Your task to perform on an android device: delete browsing data in the chrome app Image 0: 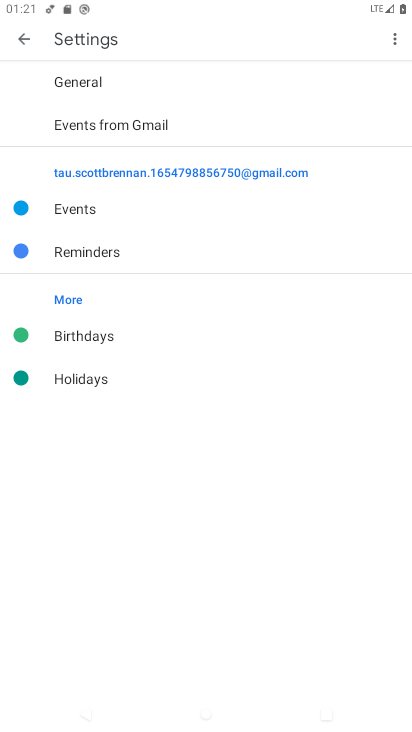
Step 0: press home button
Your task to perform on an android device: delete browsing data in the chrome app Image 1: 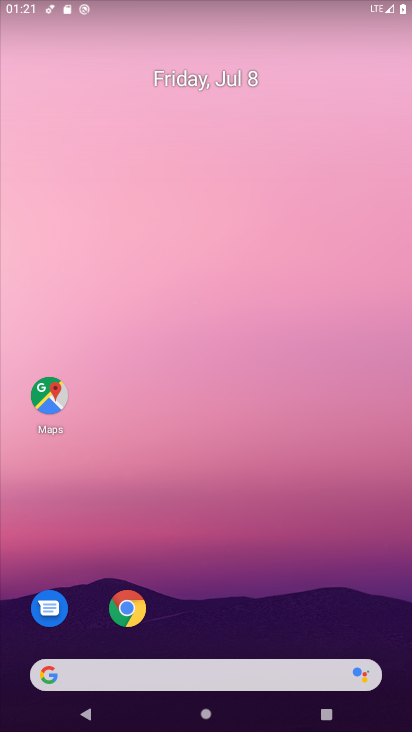
Step 1: drag from (196, 586) to (194, 145)
Your task to perform on an android device: delete browsing data in the chrome app Image 2: 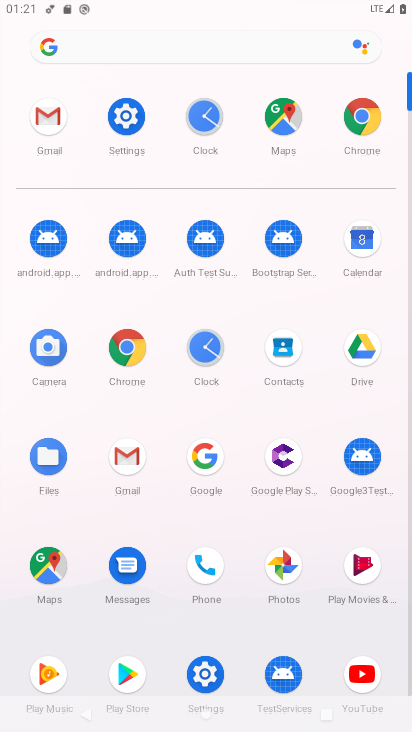
Step 2: click (130, 332)
Your task to perform on an android device: delete browsing data in the chrome app Image 3: 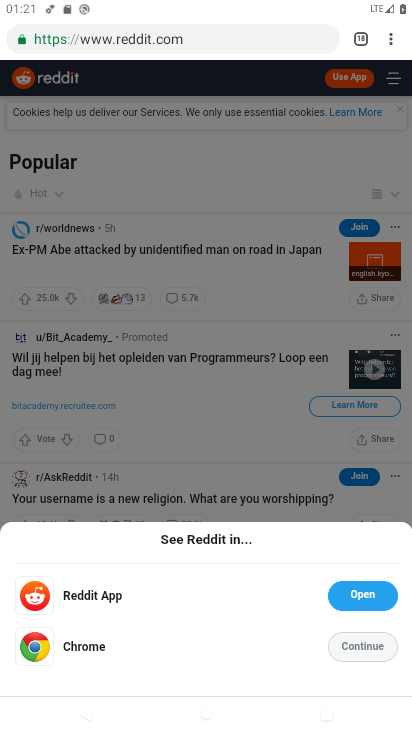
Step 3: click (391, 29)
Your task to perform on an android device: delete browsing data in the chrome app Image 4: 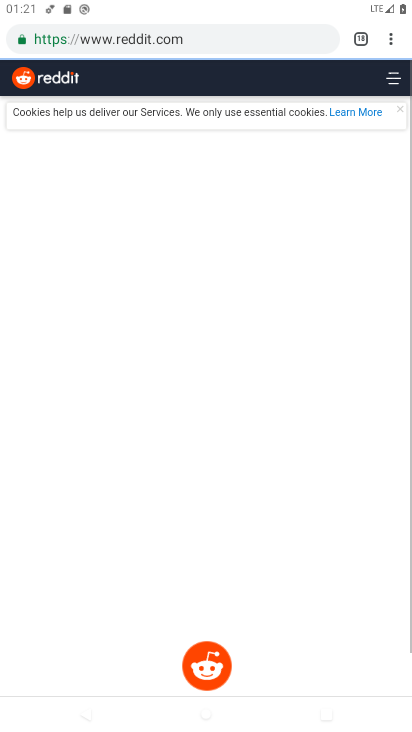
Step 4: click (391, 31)
Your task to perform on an android device: delete browsing data in the chrome app Image 5: 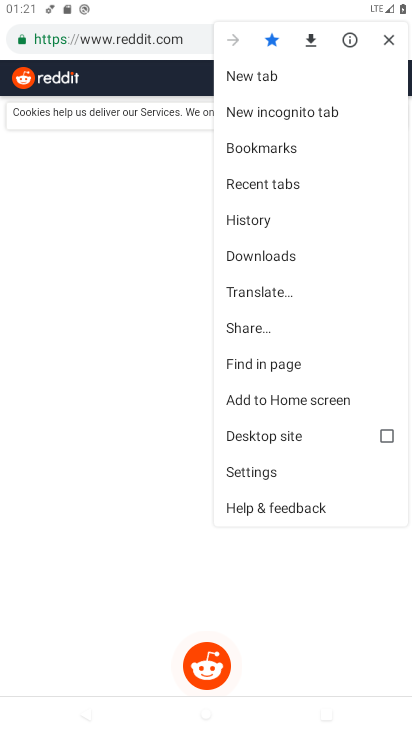
Step 5: click (263, 465)
Your task to perform on an android device: delete browsing data in the chrome app Image 6: 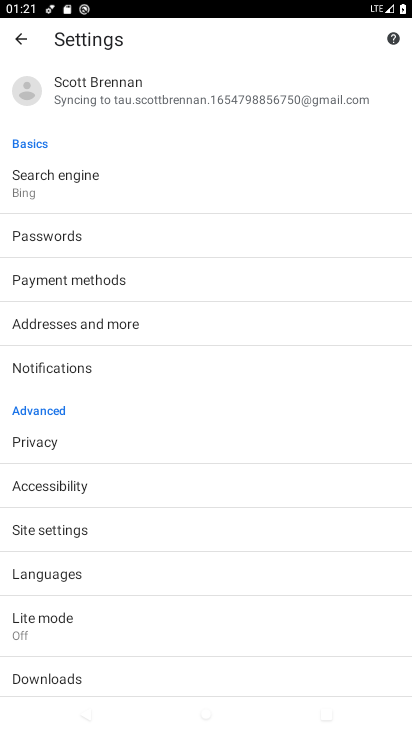
Step 6: drag from (114, 604) to (179, 254)
Your task to perform on an android device: delete browsing data in the chrome app Image 7: 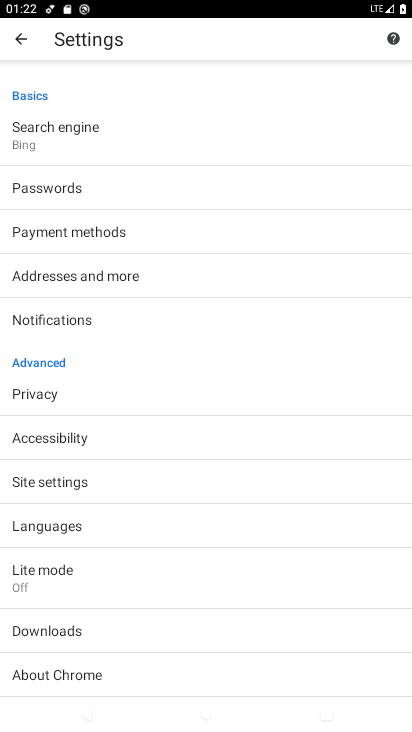
Step 7: drag from (169, 191) to (161, 517)
Your task to perform on an android device: delete browsing data in the chrome app Image 8: 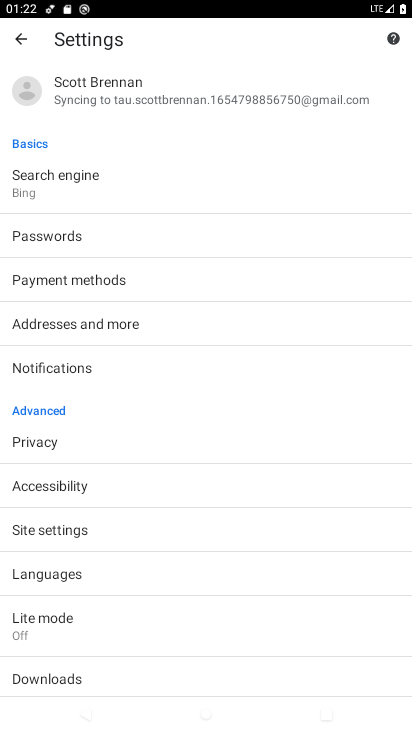
Step 8: click (15, 36)
Your task to perform on an android device: delete browsing data in the chrome app Image 9: 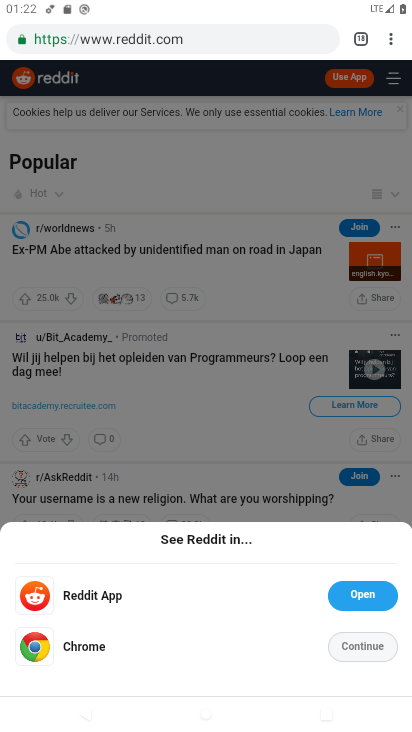
Step 9: click (394, 29)
Your task to perform on an android device: delete browsing data in the chrome app Image 10: 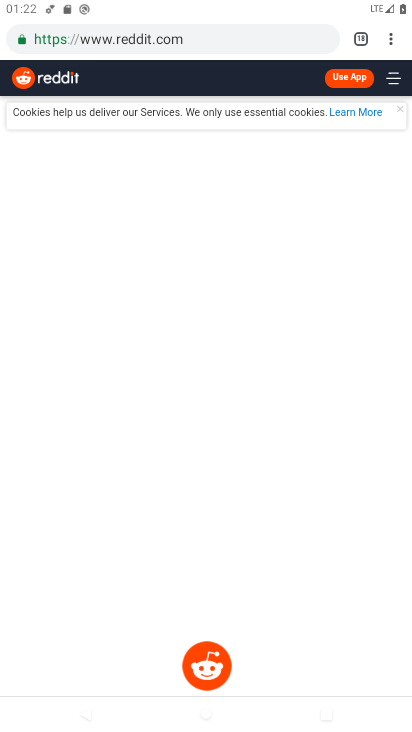
Step 10: click (391, 44)
Your task to perform on an android device: delete browsing data in the chrome app Image 11: 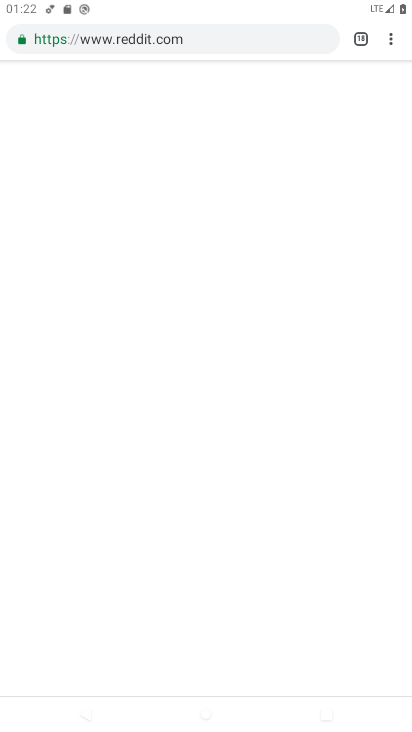
Step 11: click (387, 44)
Your task to perform on an android device: delete browsing data in the chrome app Image 12: 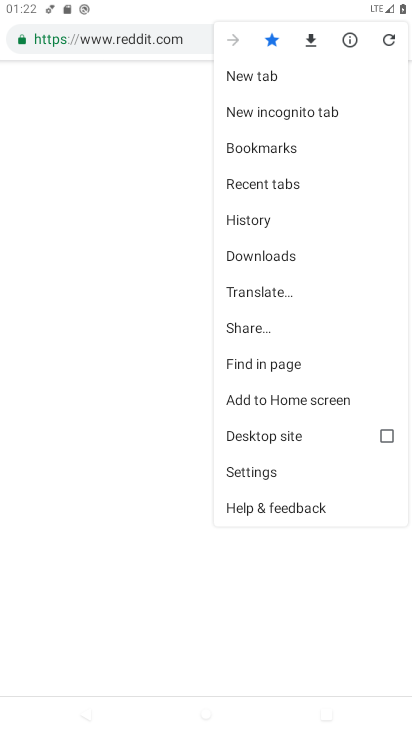
Step 12: click (249, 466)
Your task to perform on an android device: delete browsing data in the chrome app Image 13: 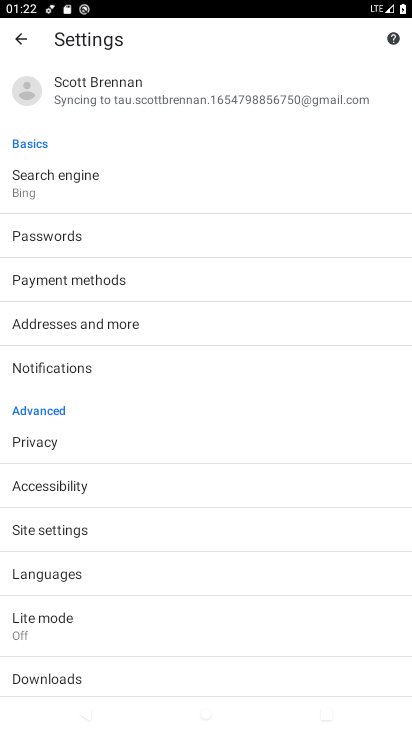
Step 13: drag from (101, 635) to (152, 386)
Your task to perform on an android device: delete browsing data in the chrome app Image 14: 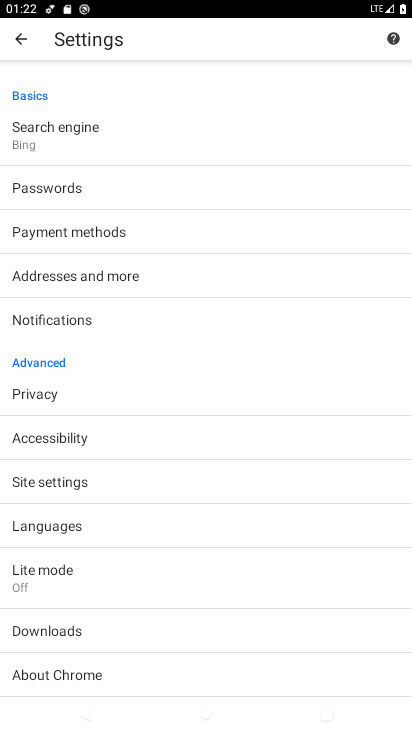
Step 14: click (82, 392)
Your task to perform on an android device: delete browsing data in the chrome app Image 15: 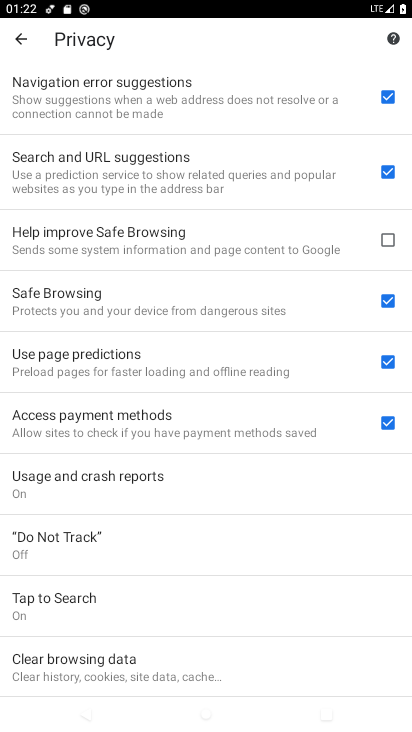
Step 15: click (121, 657)
Your task to perform on an android device: delete browsing data in the chrome app Image 16: 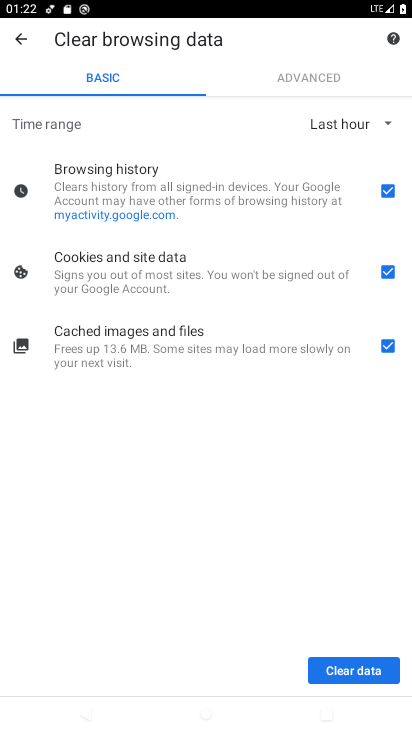
Step 16: click (373, 661)
Your task to perform on an android device: delete browsing data in the chrome app Image 17: 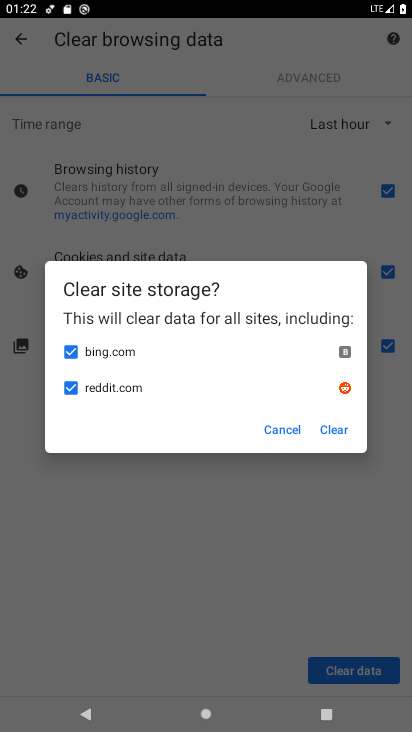
Step 17: click (342, 424)
Your task to perform on an android device: delete browsing data in the chrome app Image 18: 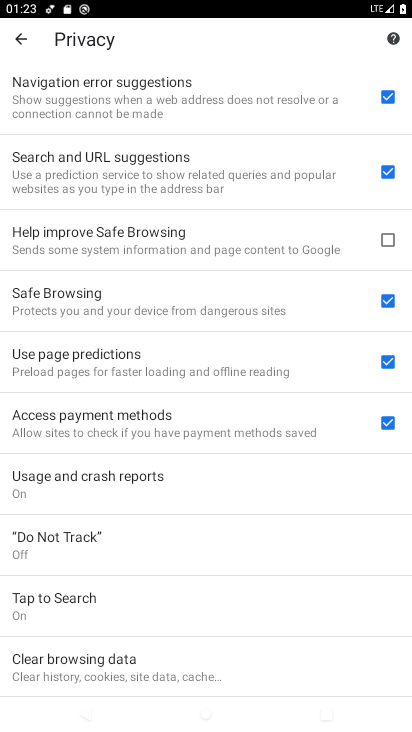
Step 18: task complete